Your task to perform on an android device: Search for a tv stand on Ikea Image 0: 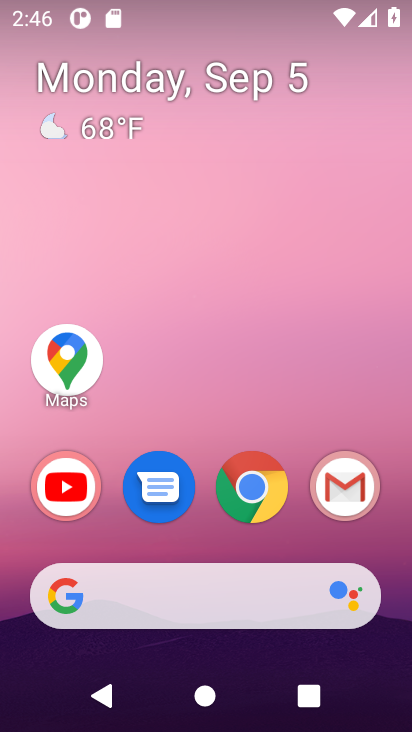
Step 0: click (232, 500)
Your task to perform on an android device: Search for a tv stand on Ikea Image 1: 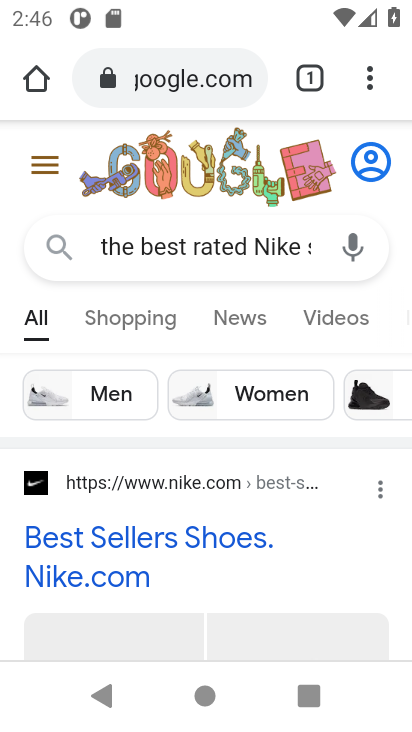
Step 1: click (163, 88)
Your task to perform on an android device: Search for a tv stand on Ikea Image 2: 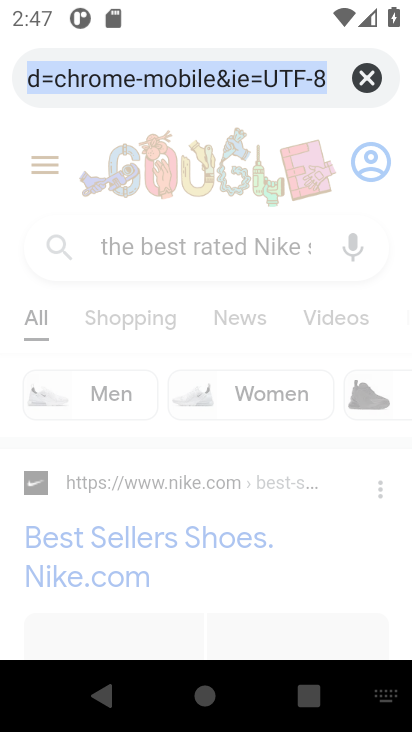
Step 2: click (360, 75)
Your task to perform on an android device: Search for a tv stand on Ikea Image 3: 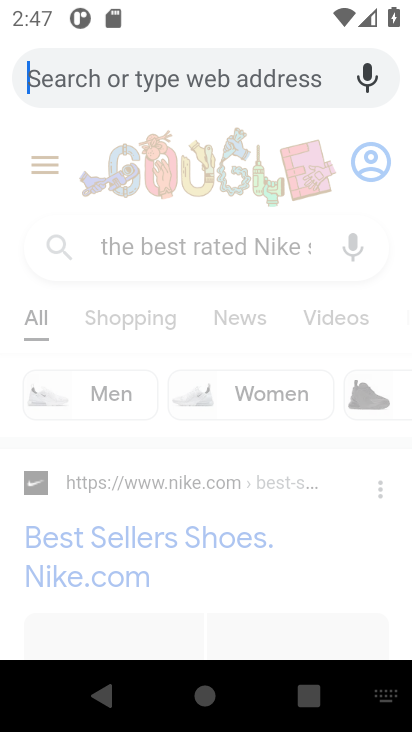
Step 3: type "tv stand on Ikea"
Your task to perform on an android device: Search for a tv stand on Ikea Image 4: 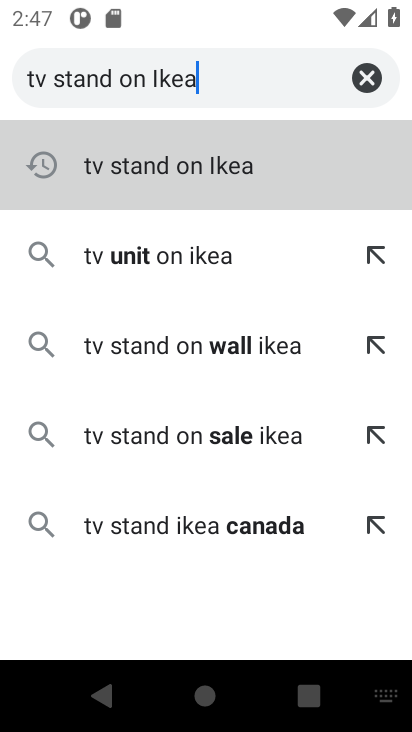
Step 4: click (196, 182)
Your task to perform on an android device: Search for a tv stand on Ikea Image 5: 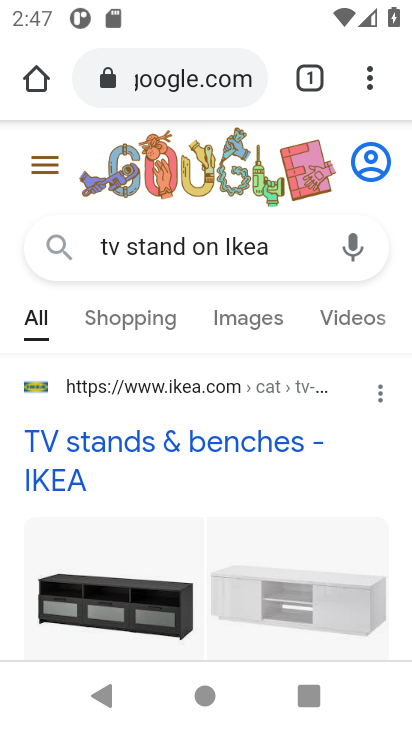
Step 5: task complete